Your task to perform on an android device: turn pop-ups off in chrome Image 0: 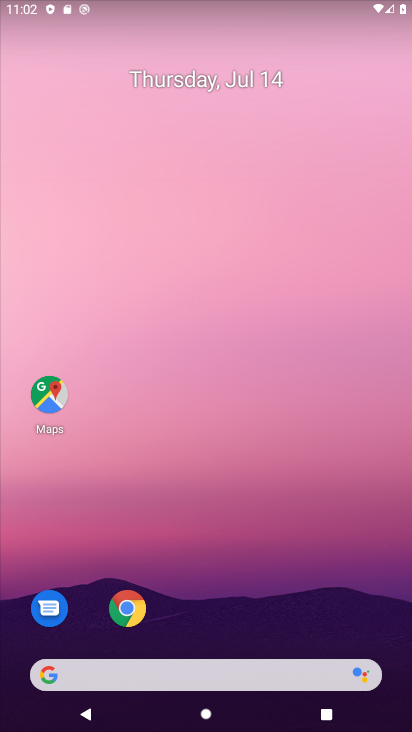
Step 0: drag from (281, 461) to (243, 107)
Your task to perform on an android device: turn pop-ups off in chrome Image 1: 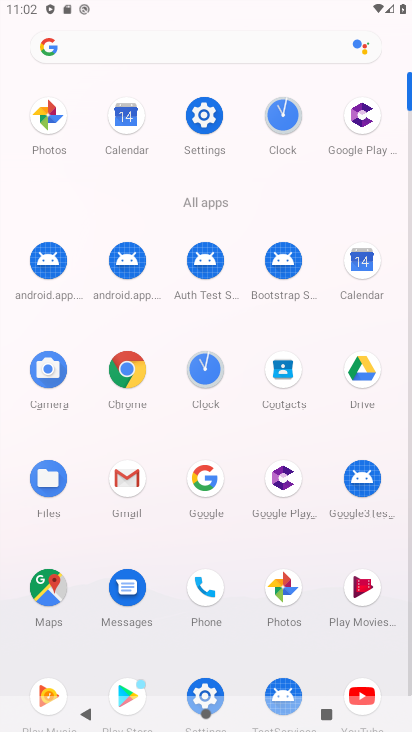
Step 1: click (139, 361)
Your task to perform on an android device: turn pop-ups off in chrome Image 2: 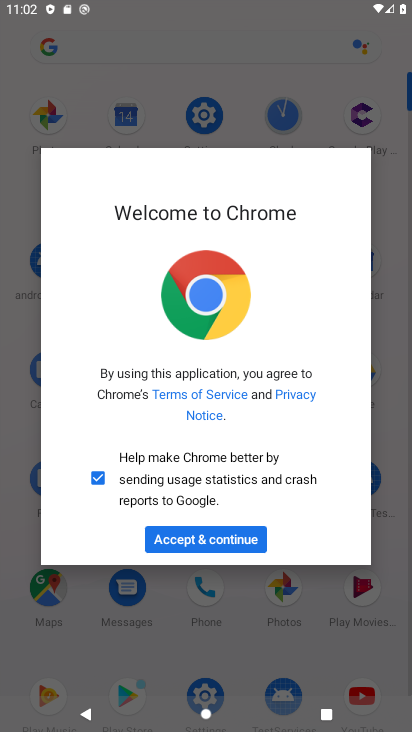
Step 2: click (247, 534)
Your task to perform on an android device: turn pop-ups off in chrome Image 3: 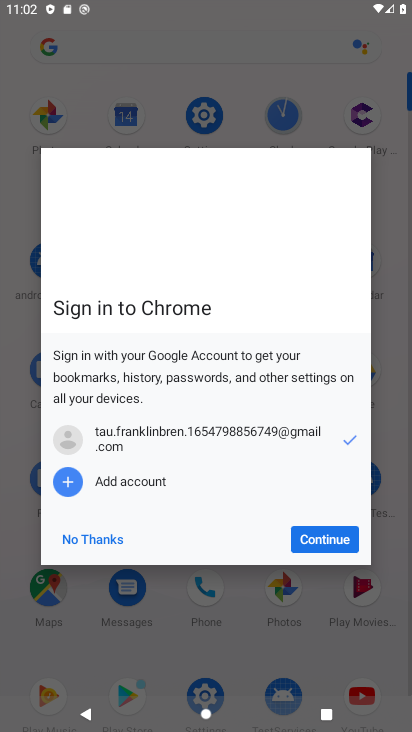
Step 3: click (124, 538)
Your task to perform on an android device: turn pop-ups off in chrome Image 4: 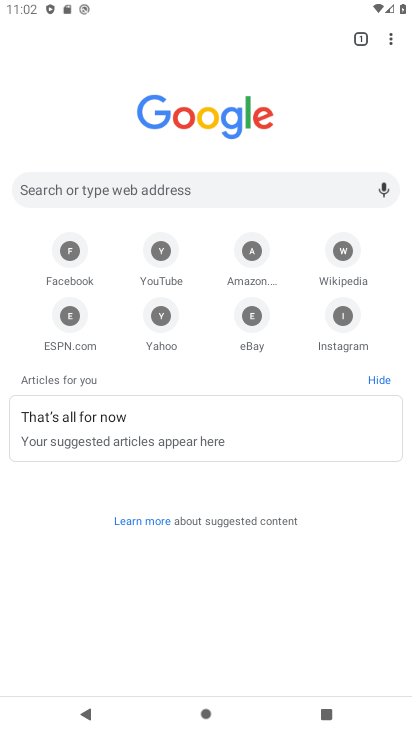
Step 4: drag from (394, 35) to (299, 329)
Your task to perform on an android device: turn pop-ups off in chrome Image 5: 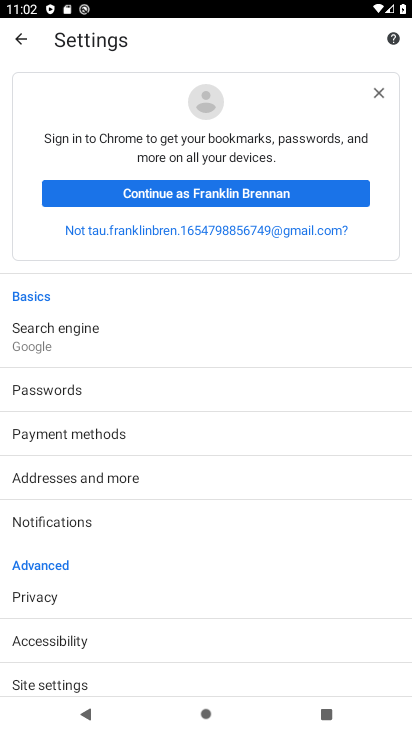
Step 5: drag from (244, 495) to (285, 136)
Your task to perform on an android device: turn pop-ups off in chrome Image 6: 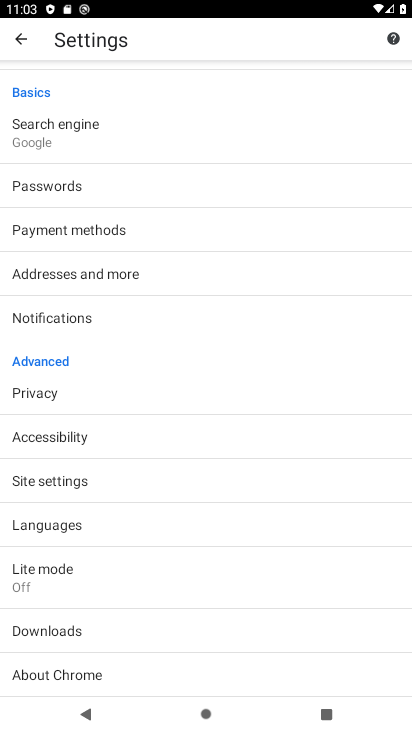
Step 6: click (80, 479)
Your task to perform on an android device: turn pop-ups off in chrome Image 7: 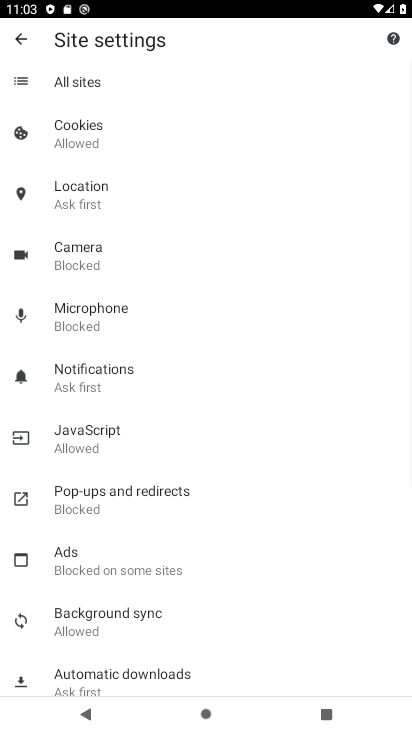
Step 7: click (151, 489)
Your task to perform on an android device: turn pop-ups off in chrome Image 8: 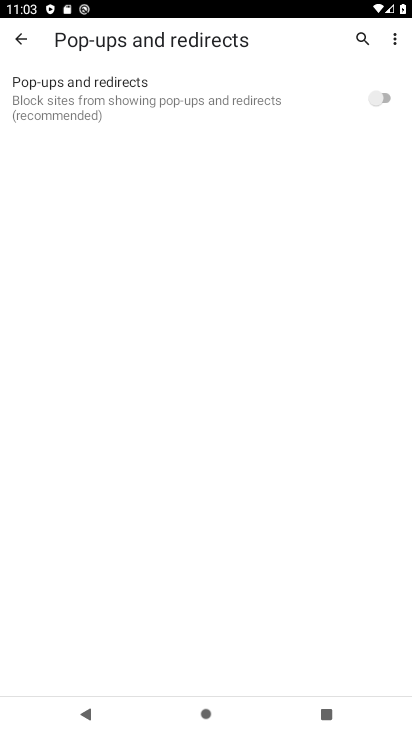
Step 8: task complete